Your task to perform on an android device: Open notification settings Image 0: 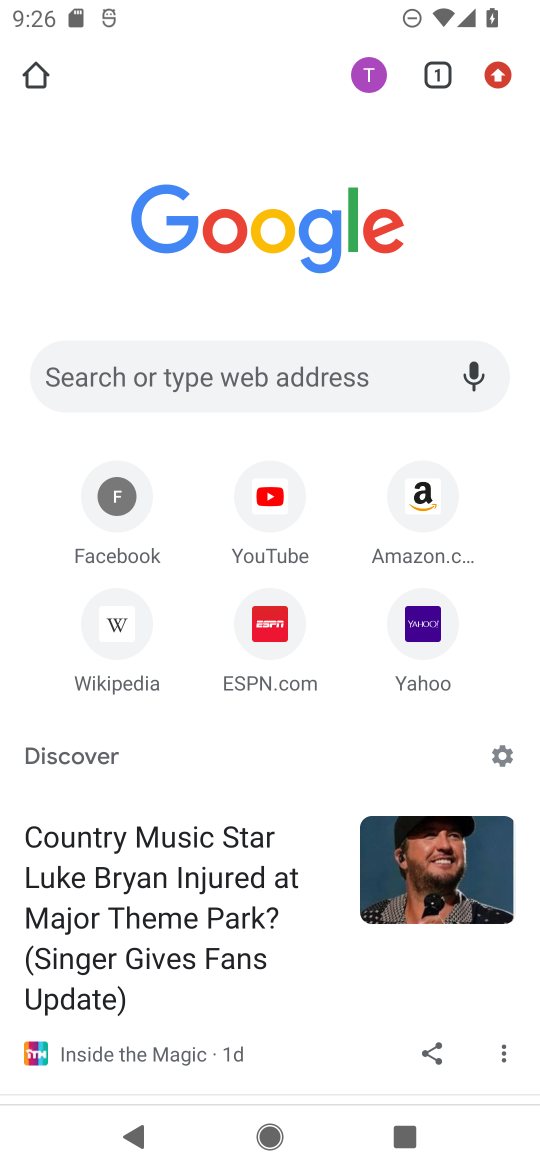
Step 0: press home button
Your task to perform on an android device: Open notification settings Image 1: 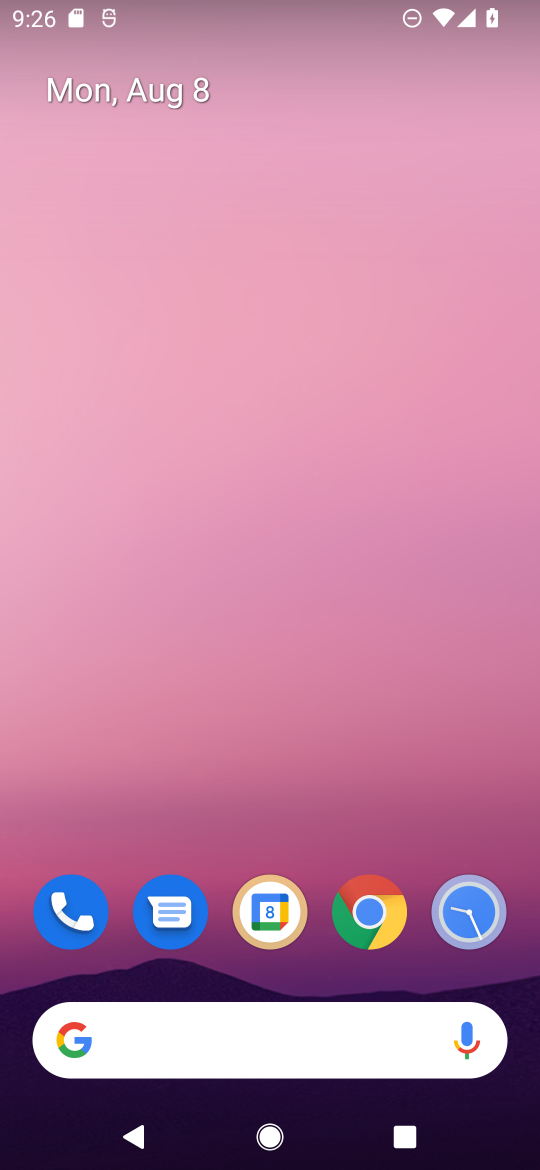
Step 1: drag from (508, 1024) to (211, 99)
Your task to perform on an android device: Open notification settings Image 2: 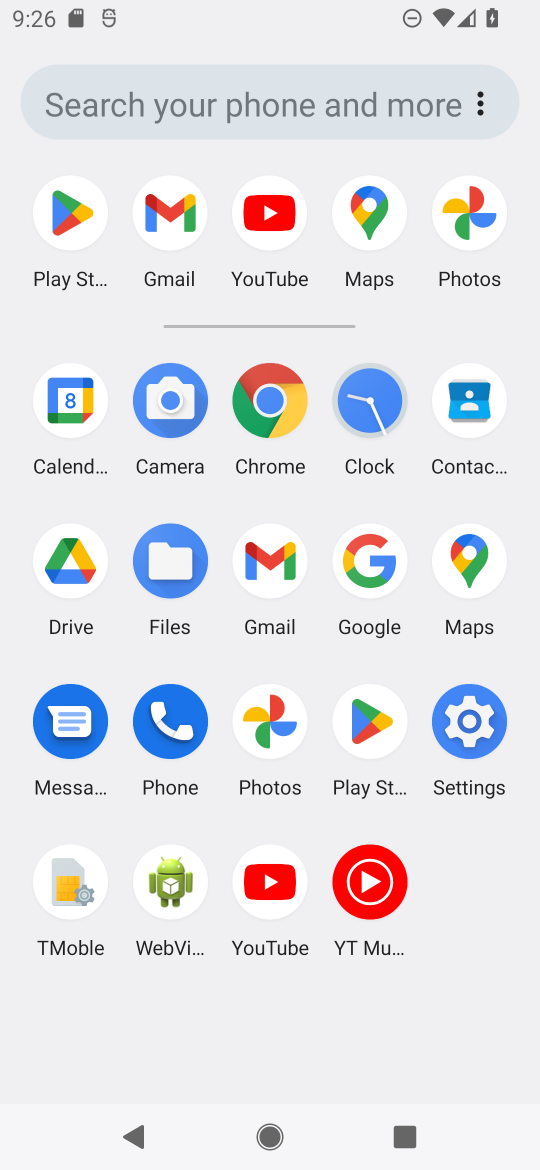
Step 2: click (451, 714)
Your task to perform on an android device: Open notification settings Image 3: 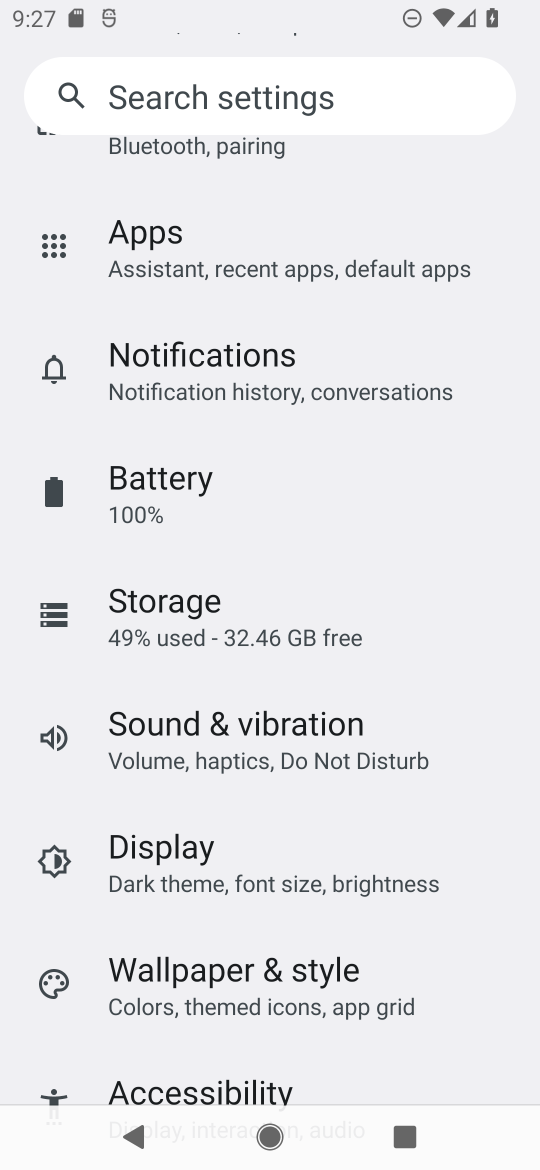
Step 3: click (166, 395)
Your task to perform on an android device: Open notification settings Image 4: 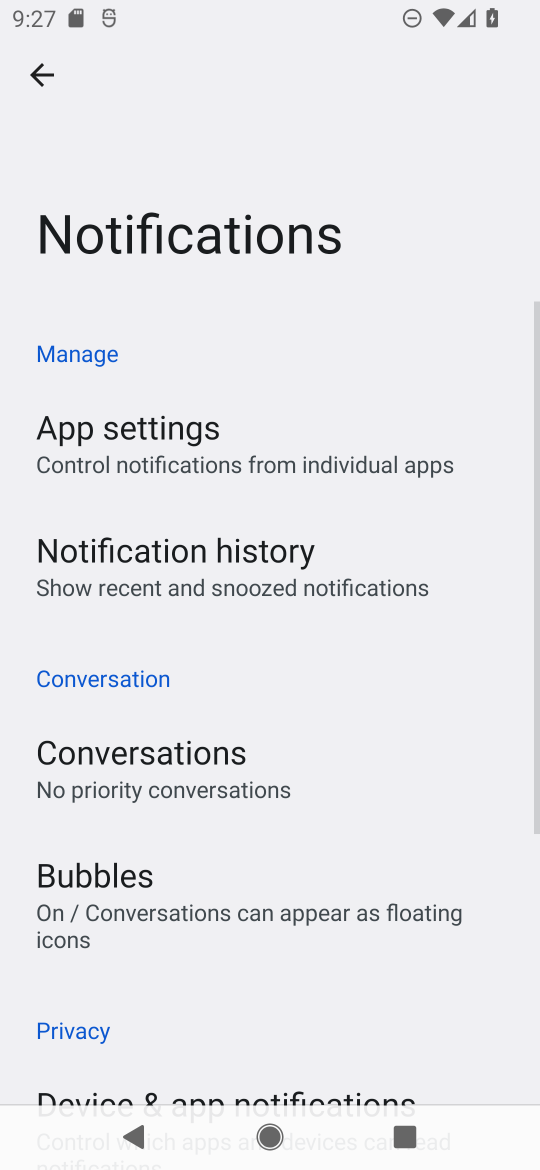
Step 4: task complete